Your task to perform on an android device: Go to Wikipedia Image 0: 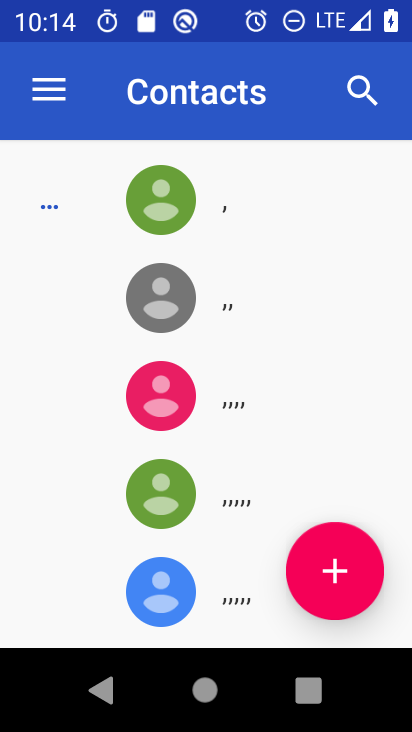
Step 0: drag from (249, 456) to (231, 189)
Your task to perform on an android device: Go to Wikipedia Image 1: 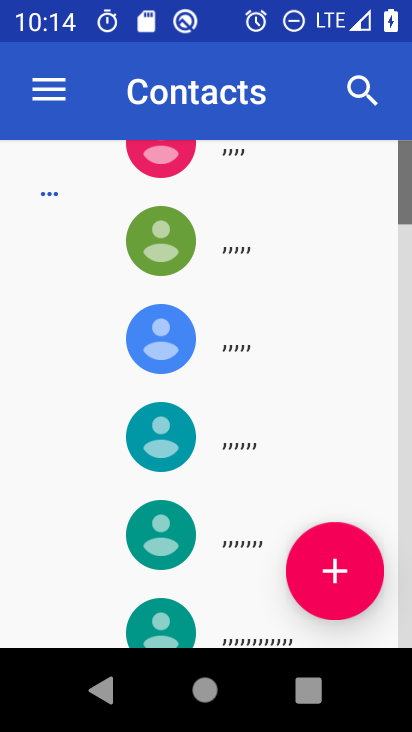
Step 1: press home button
Your task to perform on an android device: Go to Wikipedia Image 2: 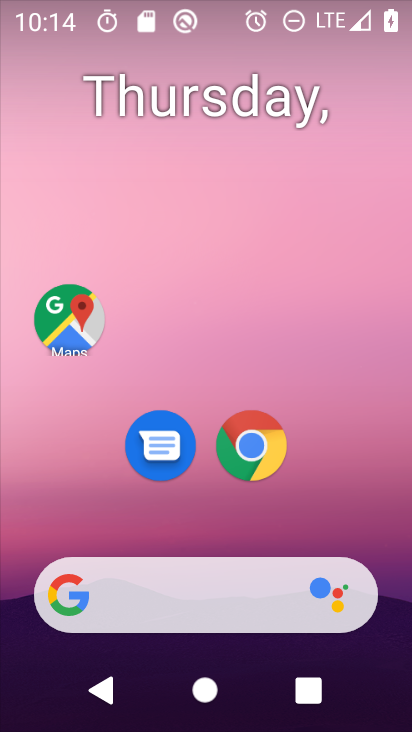
Step 2: click (188, 567)
Your task to perform on an android device: Go to Wikipedia Image 3: 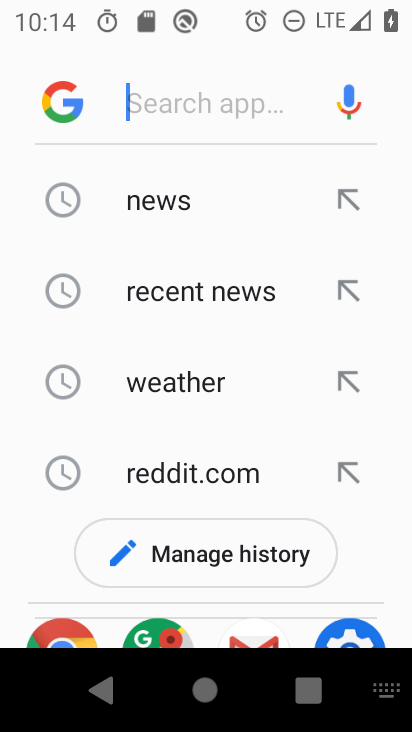
Step 3: type "wikipedia"
Your task to perform on an android device: Go to Wikipedia Image 4: 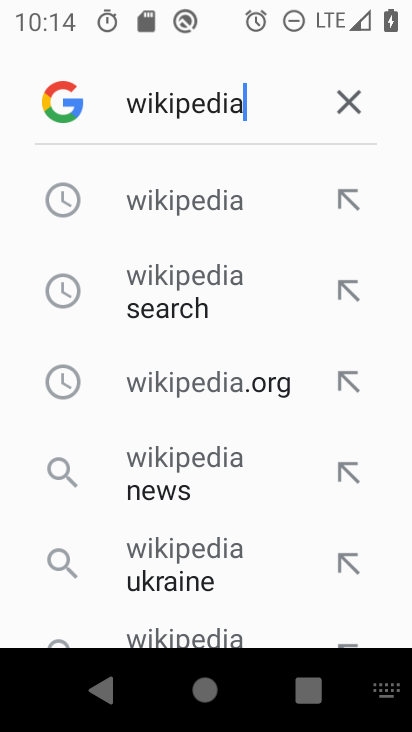
Step 4: click (199, 214)
Your task to perform on an android device: Go to Wikipedia Image 5: 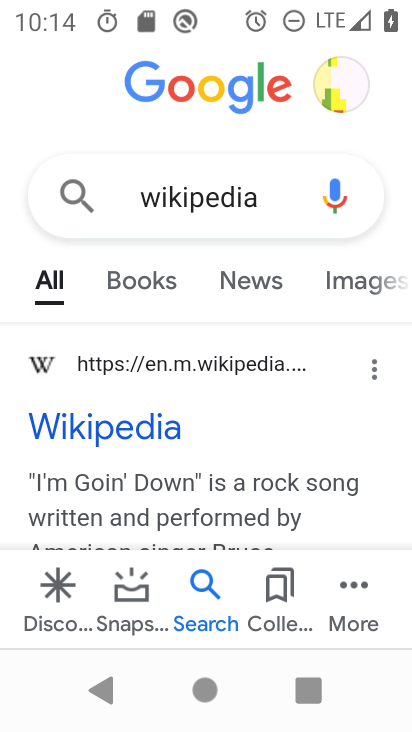
Step 5: task complete